Your task to perform on an android device: Go to privacy settings Image 0: 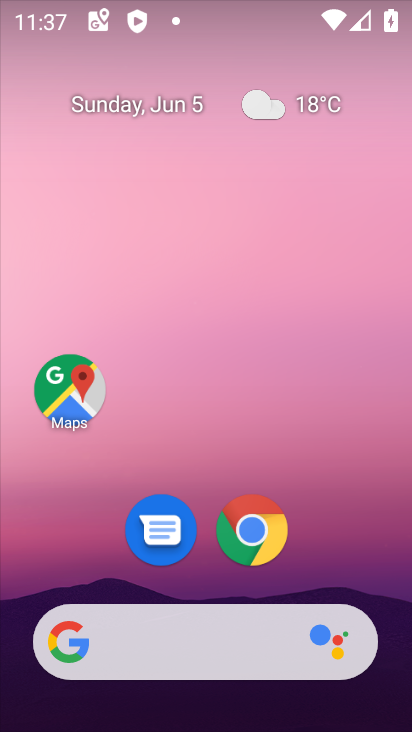
Step 0: drag from (368, 103) to (314, 17)
Your task to perform on an android device: Go to privacy settings Image 1: 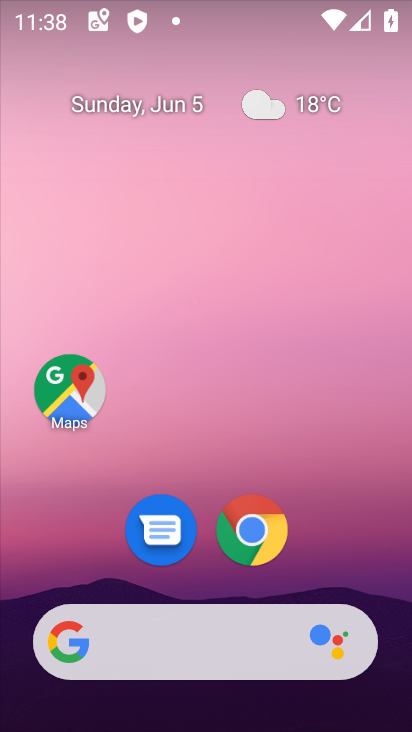
Step 1: drag from (277, 378) to (159, 27)
Your task to perform on an android device: Go to privacy settings Image 2: 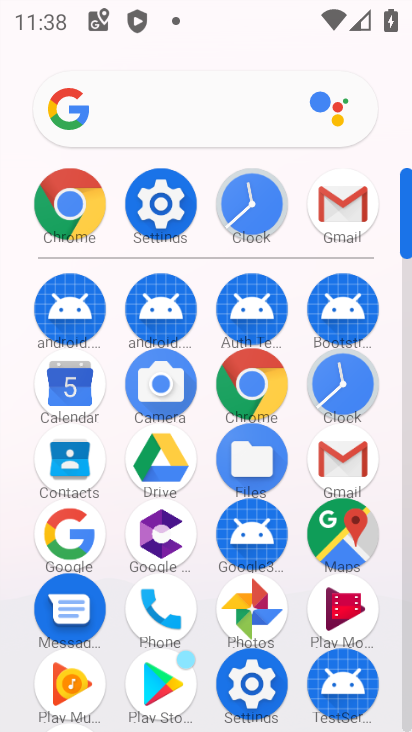
Step 2: click (160, 211)
Your task to perform on an android device: Go to privacy settings Image 3: 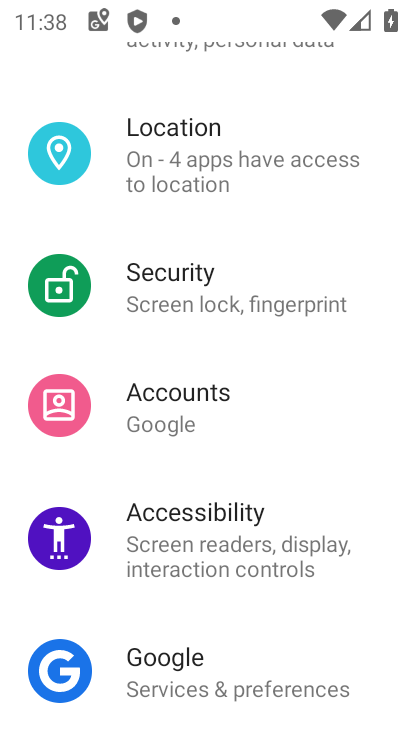
Step 3: drag from (244, 626) to (220, 59)
Your task to perform on an android device: Go to privacy settings Image 4: 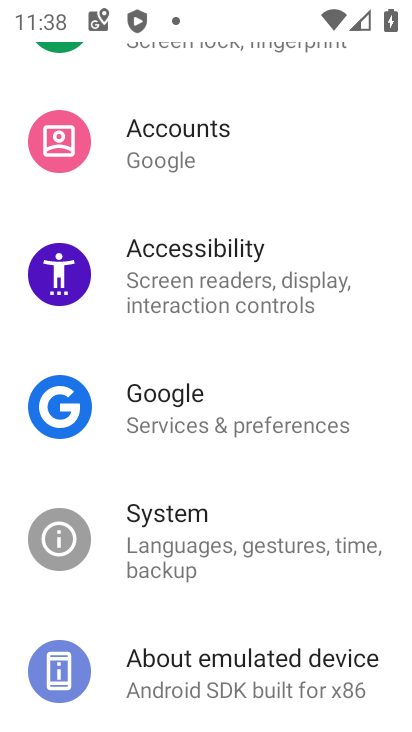
Step 4: drag from (220, 178) to (221, 561)
Your task to perform on an android device: Go to privacy settings Image 5: 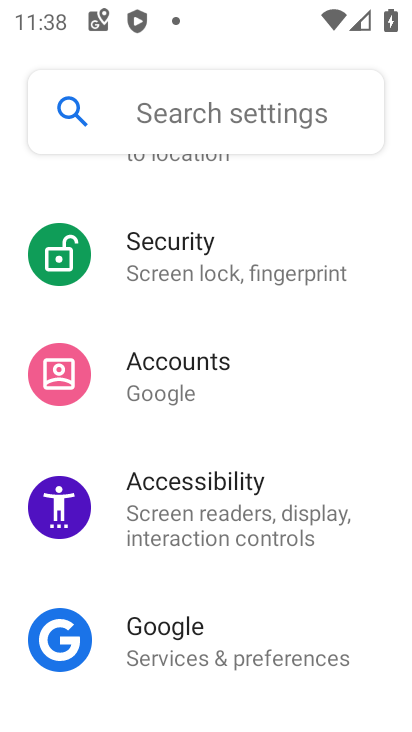
Step 5: drag from (237, 211) to (284, 700)
Your task to perform on an android device: Go to privacy settings Image 6: 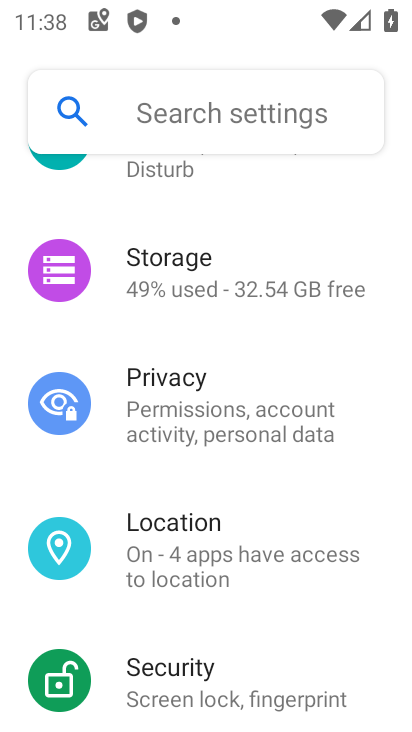
Step 6: click (205, 399)
Your task to perform on an android device: Go to privacy settings Image 7: 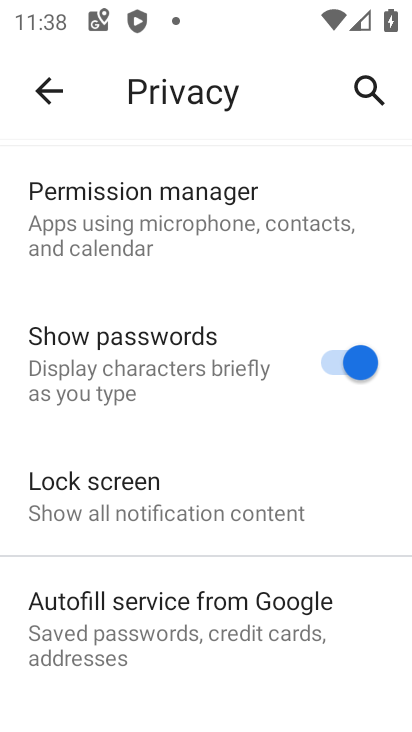
Step 7: task complete